Your task to perform on an android device: What's on my calendar tomorrow? Image 0: 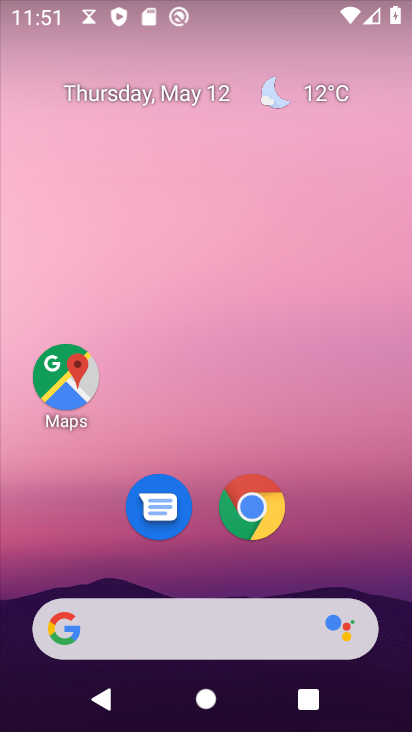
Step 0: drag from (307, 536) to (309, 118)
Your task to perform on an android device: What's on my calendar tomorrow? Image 1: 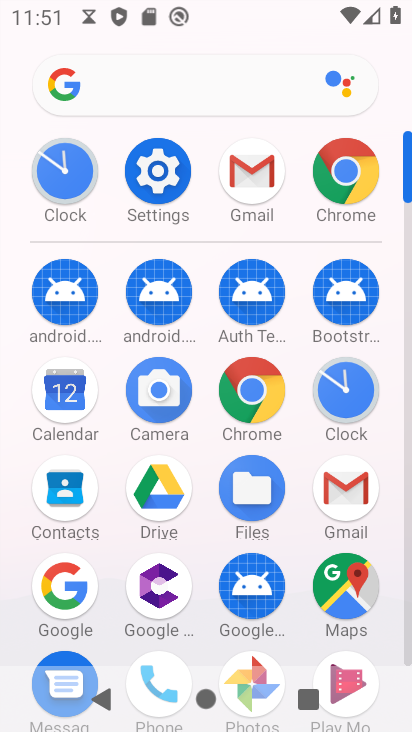
Step 1: click (68, 407)
Your task to perform on an android device: What's on my calendar tomorrow? Image 2: 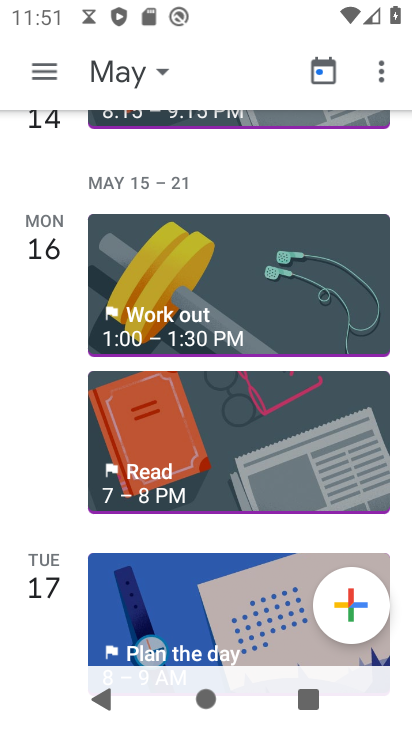
Step 2: click (140, 78)
Your task to perform on an android device: What's on my calendar tomorrow? Image 3: 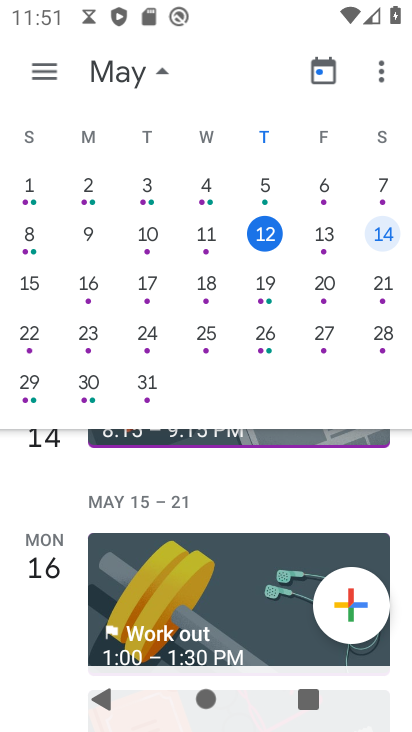
Step 3: click (259, 232)
Your task to perform on an android device: What's on my calendar tomorrow? Image 4: 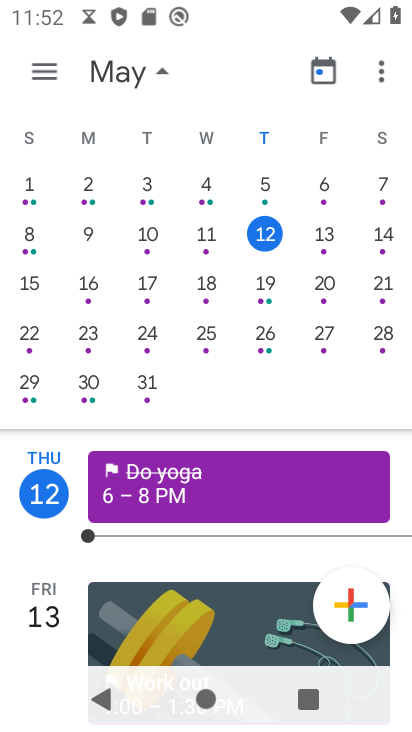
Step 4: click (331, 231)
Your task to perform on an android device: What's on my calendar tomorrow? Image 5: 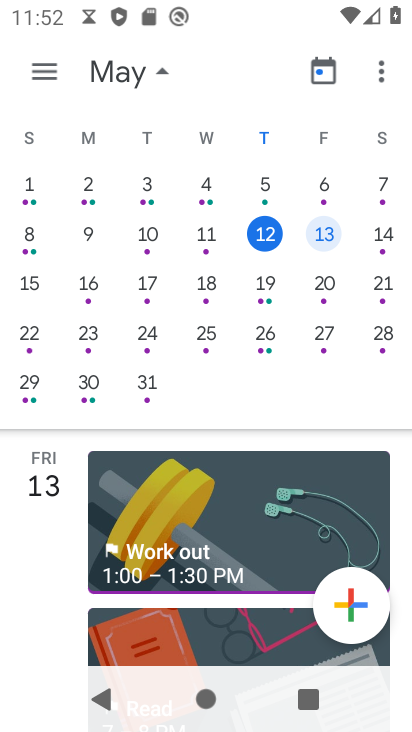
Step 5: task complete